Your task to perform on an android device: Open the map Image 0: 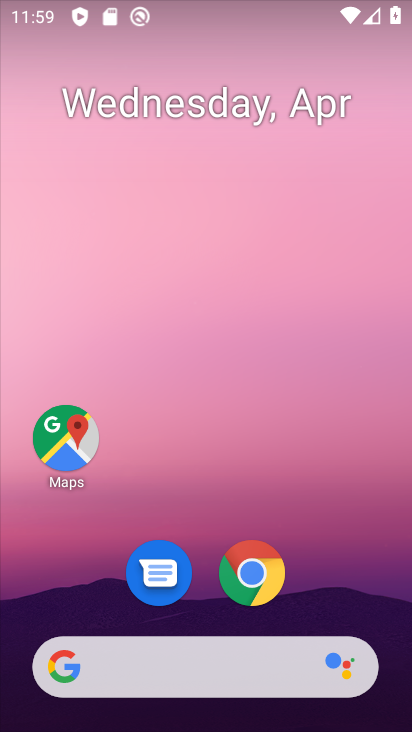
Step 0: click (66, 458)
Your task to perform on an android device: Open the map Image 1: 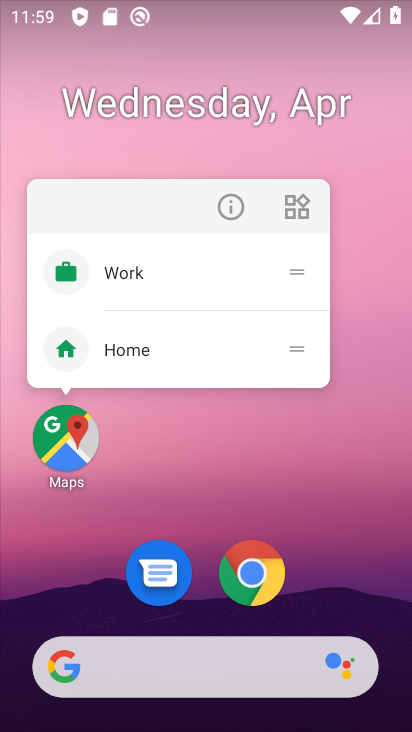
Step 1: click (75, 438)
Your task to perform on an android device: Open the map Image 2: 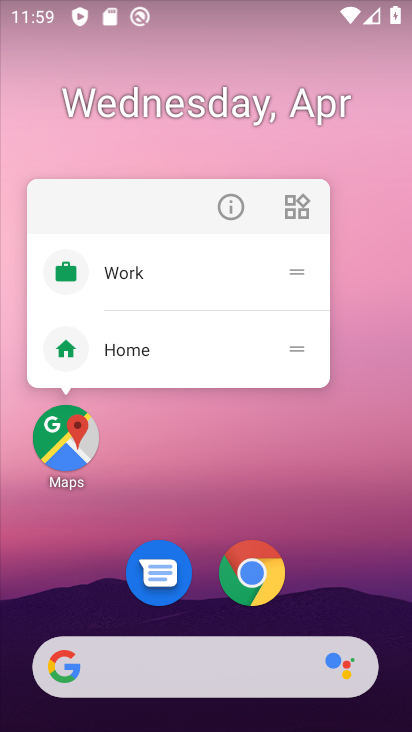
Step 2: click (54, 437)
Your task to perform on an android device: Open the map Image 3: 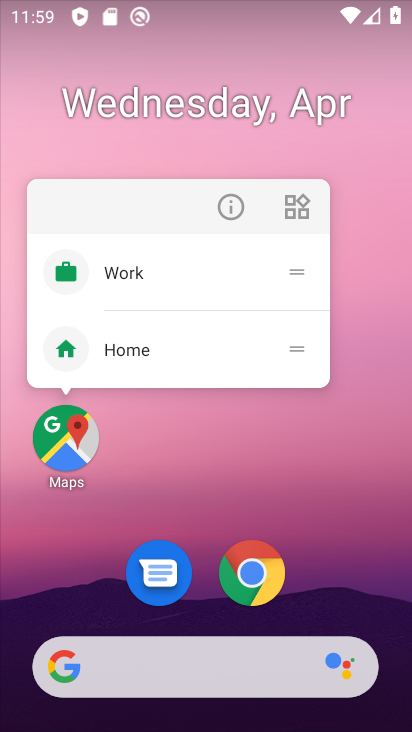
Step 3: click (61, 445)
Your task to perform on an android device: Open the map Image 4: 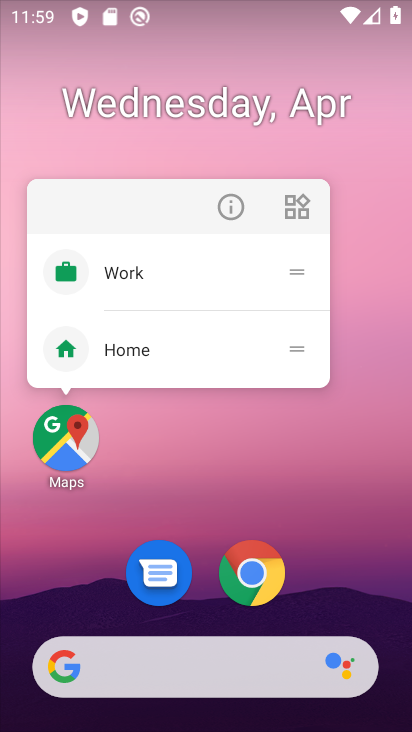
Step 4: click (73, 455)
Your task to perform on an android device: Open the map Image 5: 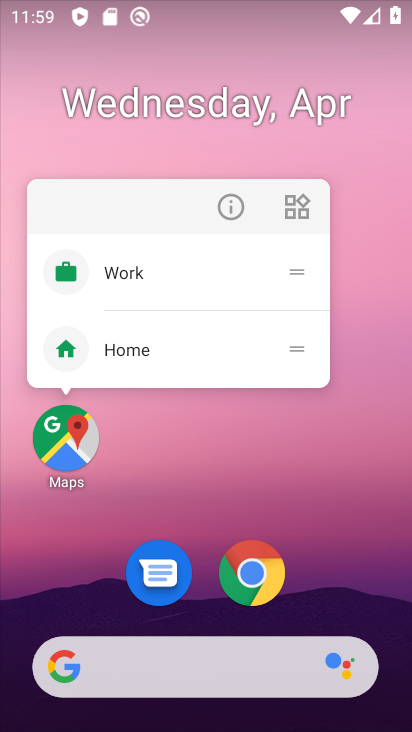
Step 5: click (74, 438)
Your task to perform on an android device: Open the map Image 6: 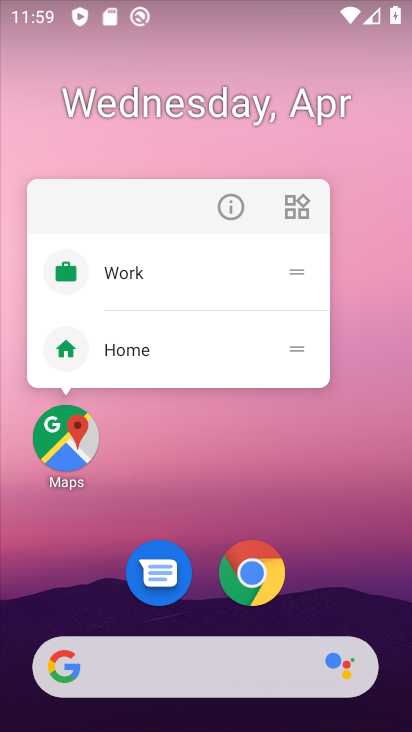
Step 6: click (52, 421)
Your task to perform on an android device: Open the map Image 7: 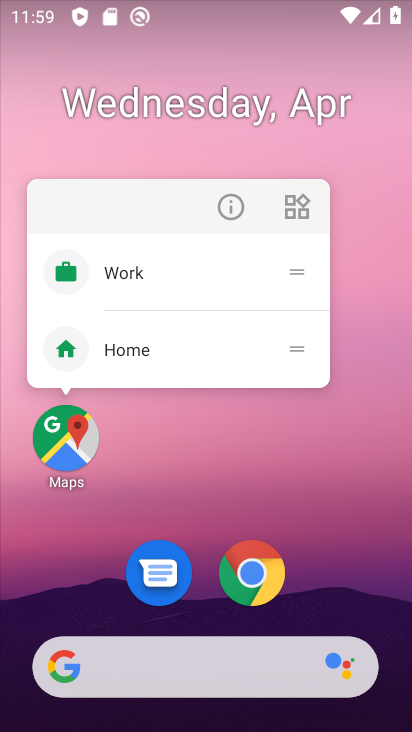
Step 7: click (53, 420)
Your task to perform on an android device: Open the map Image 8: 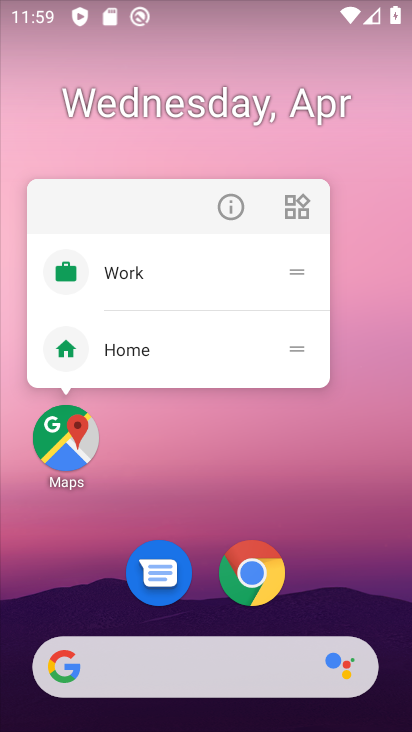
Step 8: click (75, 439)
Your task to perform on an android device: Open the map Image 9: 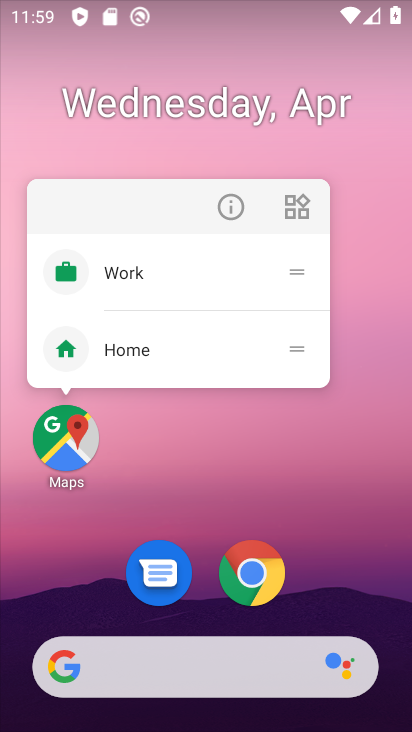
Step 9: click (80, 438)
Your task to perform on an android device: Open the map Image 10: 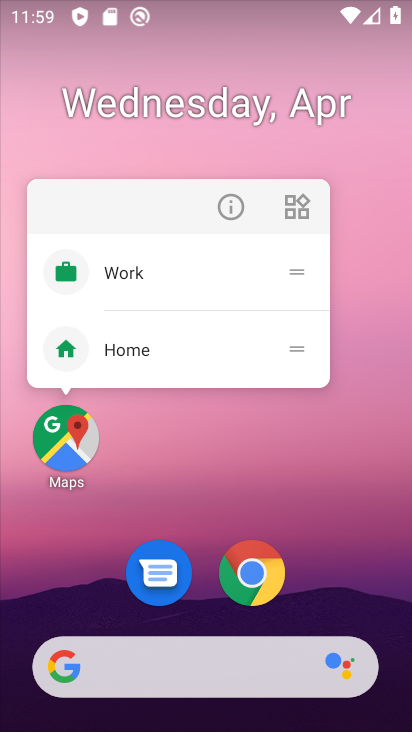
Step 10: click (68, 453)
Your task to perform on an android device: Open the map Image 11: 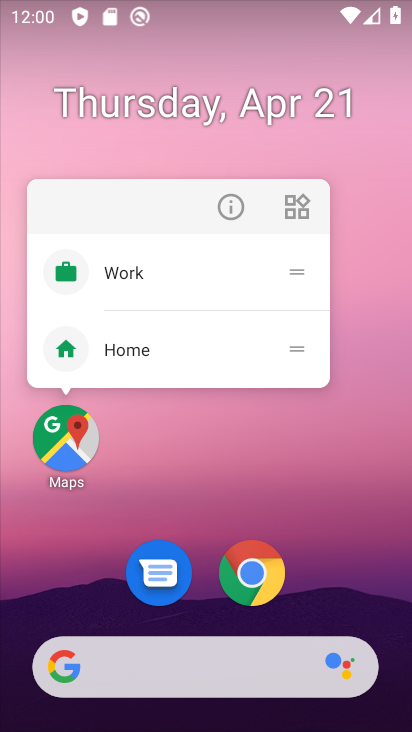
Step 11: click (68, 453)
Your task to perform on an android device: Open the map Image 12: 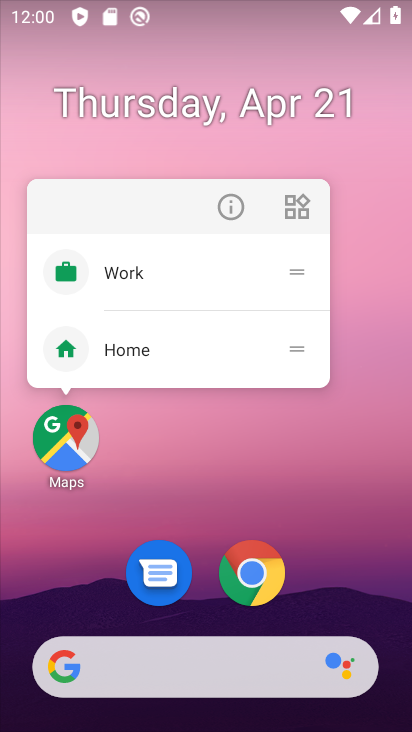
Step 12: click (67, 452)
Your task to perform on an android device: Open the map Image 13: 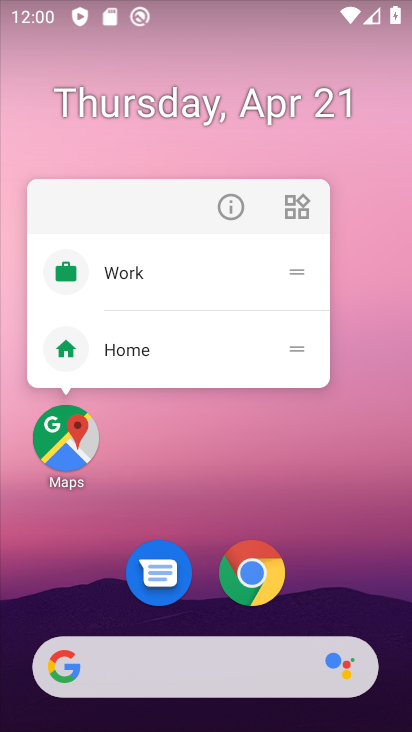
Step 13: click (84, 446)
Your task to perform on an android device: Open the map Image 14: 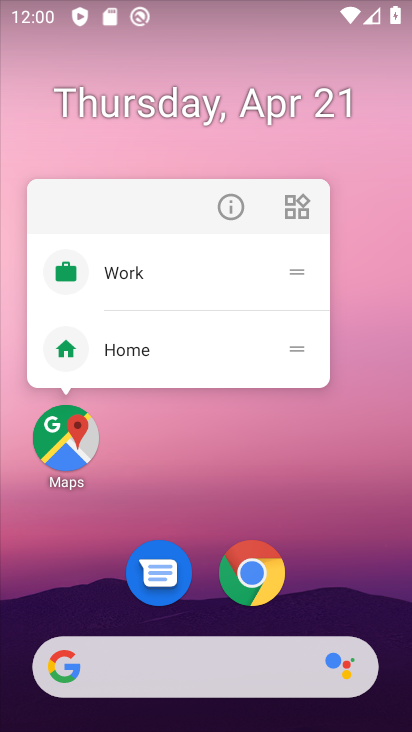
Step 14: click (68, 440)
Your task to perform on an android device: Open the map Image 15: 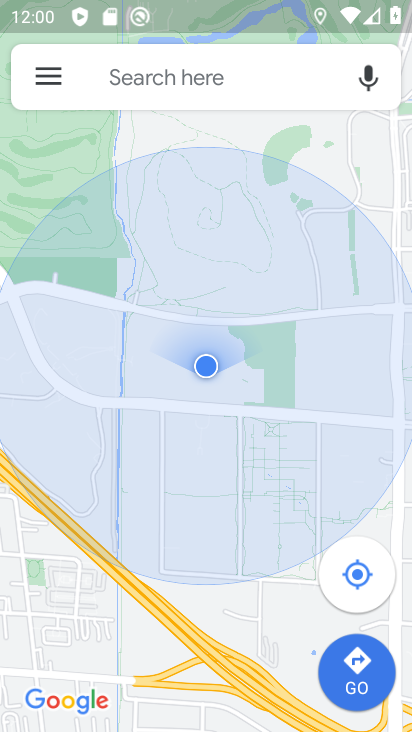
Step 15: task complete